Your task to perform on an android device: Play the last video I watched on Youtube Image 0: 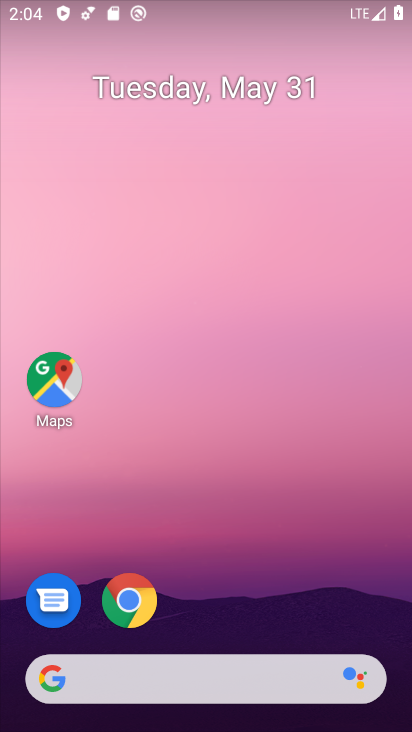
Step 0: press home button
Your task to perform on an android device: Play the last video I watched on Youtube Image 1: 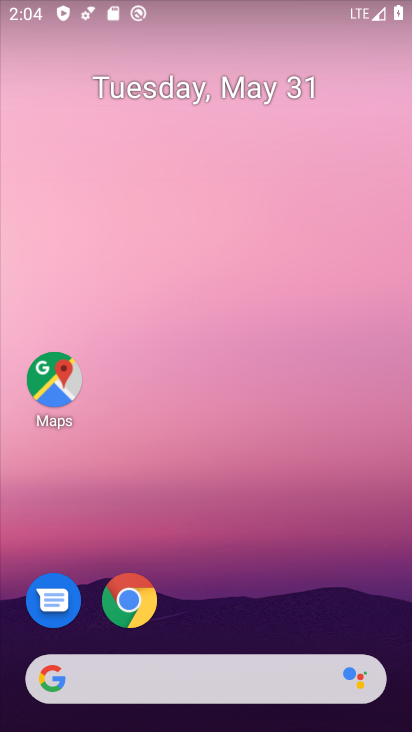
Step 1: drag from (220, 638) to (273, 26)
Your task to perform on an android device: Play the last video I watched on Youtube Image 2: 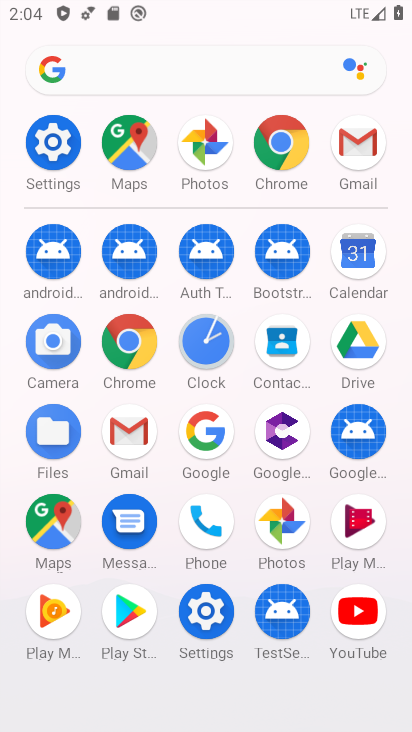
Step 2: click (355, 602)
Your task to perform on an android device: Play the last video I watched on Youtube Image 3: 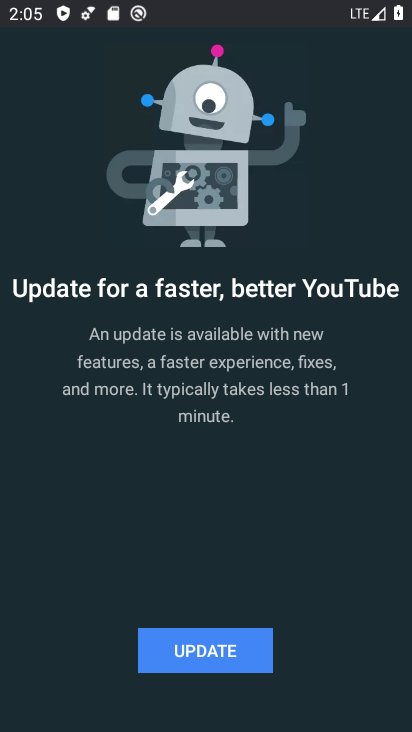
Step 3: click (192, 642)
Your task to perform on an android device: Play the last video I watched on Youtube Image 4: 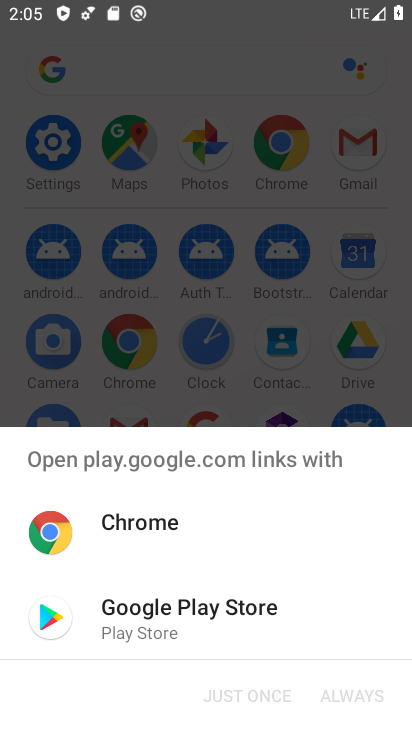
Step 4: click (127, 608)
Your task to perform on an android device: Play the last video I watched on Youtube Image 5: 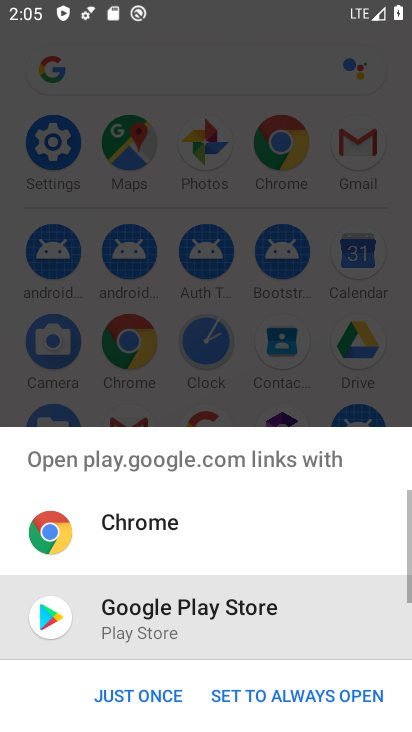
Step 5: click (128, 692)
Your task to perform on an android device: Play the last video I watched on Youtube Image 6: 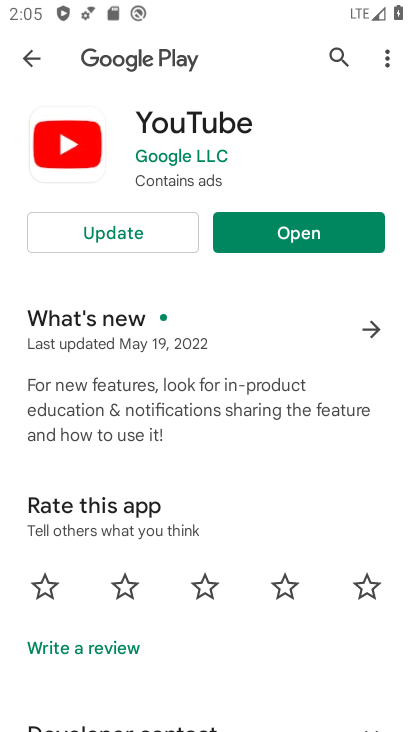
Step 6: click (113, 231)
Your task to perform on an android device: Play the last video I watched on Youtube Image 7: 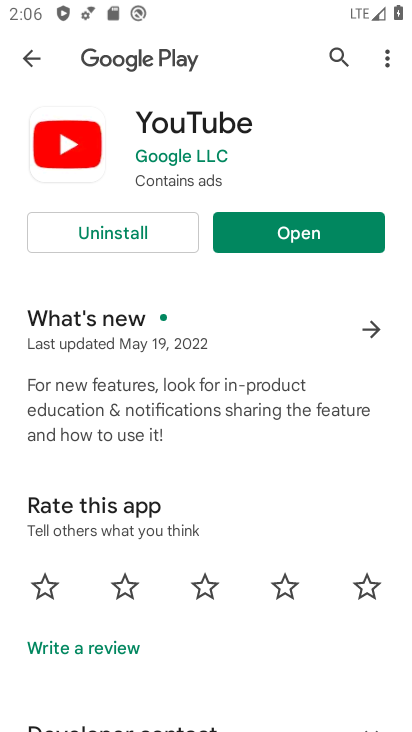
Step 7: click (280, 220)
Your task to perform on an android device: Play the last video I watched on Youtube Image 8: 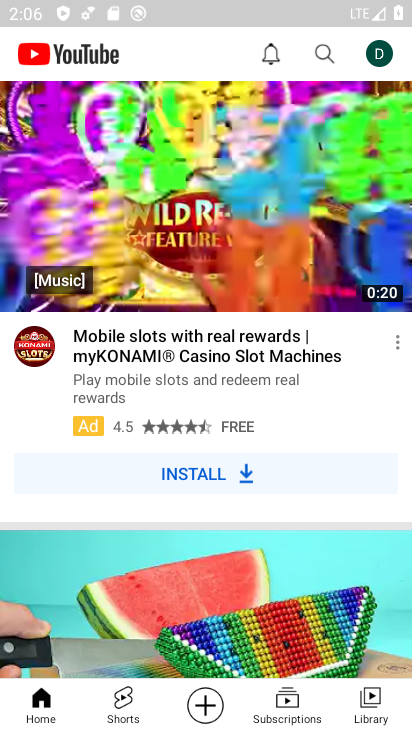
Step 8: drag from (231, 599) to (273, 167)
Your task to perform on an android device: Play the last video I watched on Youtube Image 9: 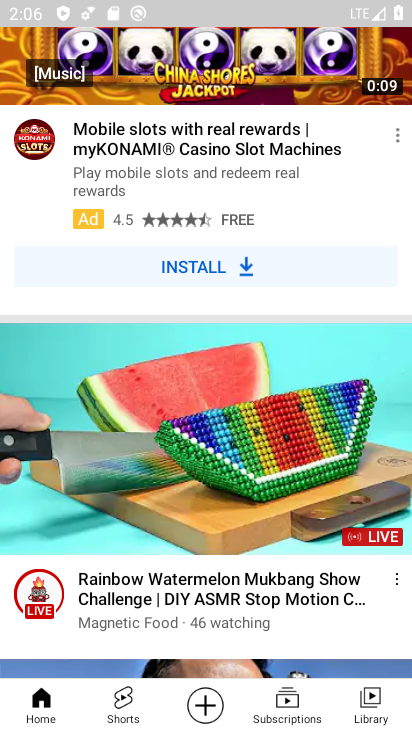
Step 9: drag from (255, 621) to (272, 307)
Your task to perform on an android device: Play the last video I watched on Youtube Image 10: 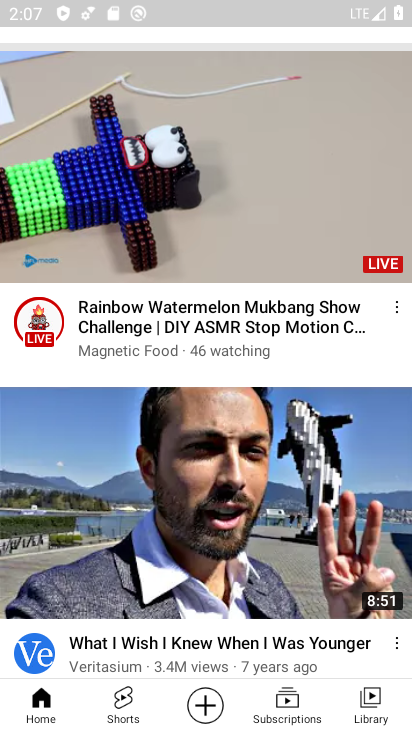
Step 10: click (372, 708)
Your task to perform on an android device: Play the last video I watched on Youtube Image 11: 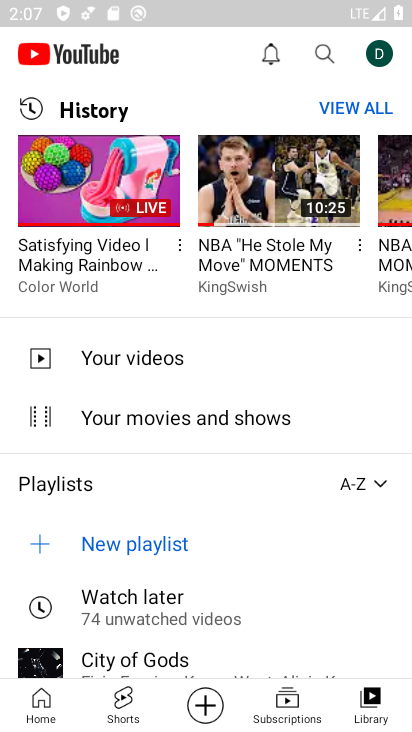
Step 11: task complete